Your task to perform on an android device: delete browsing data in the chrome app Image 0: 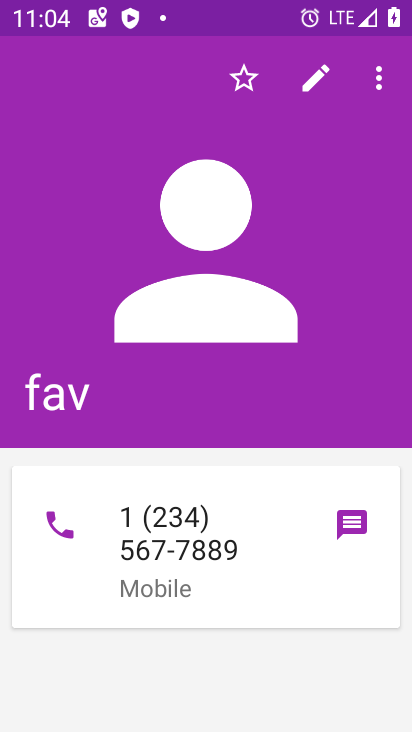
Step 0: press home button
Your task to perform on an android device: delete browsing data in the chrome app Image 1: 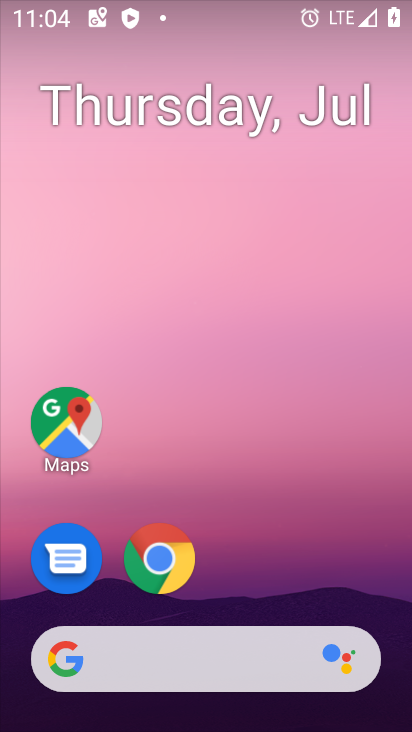
Step 1: drag from (352, 569) to (320, 66)
Your task to perform on an android device: delete browsing data in the chrome app Image 2: 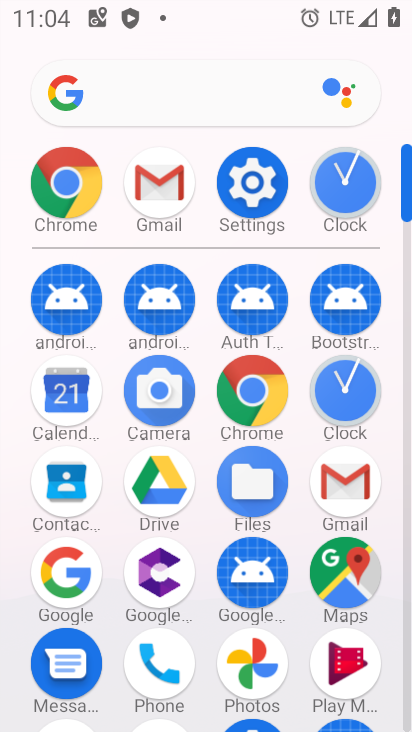
Step 2: click (260, 387)
Your task to perform on an android device: delete browsing data in the chrome app Image 3: 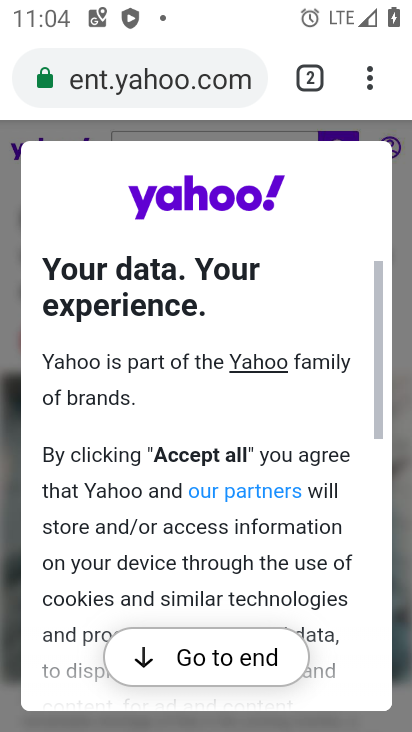
Step 3: click (370, 82)
Your task to perform on an android device: delete browsing data in the chrome app Image 4: 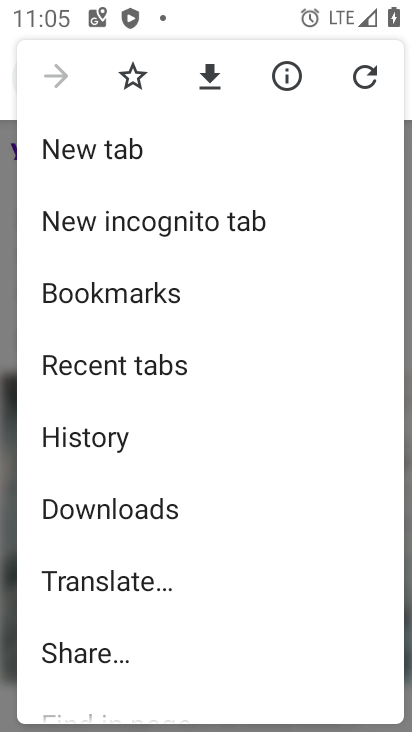
Step 4: drag from (306, 384) to (312, 265)
Your task to perform on an android device: delete browsing data in the chrome app Image 5: 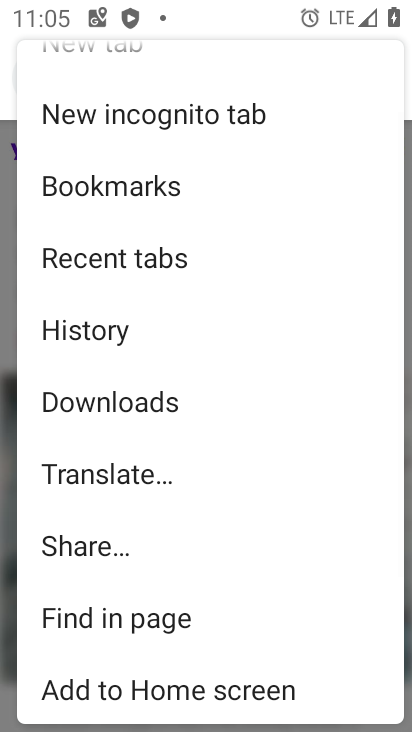
Step 5: drag from (293, 410) to (299, 300)
Your task to perform on an android device: delete browsing data in the chrome app Image 6: 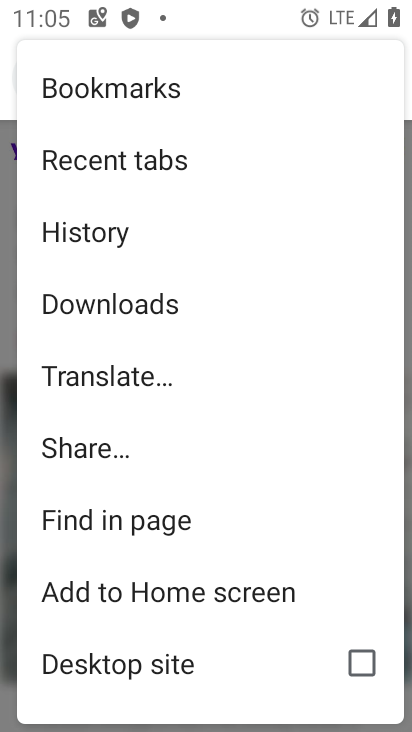
Step 6: drag from (295, 436) to (296, 308)
Your task to perform on an android device: delete browsing data in the chrome app Image 7: 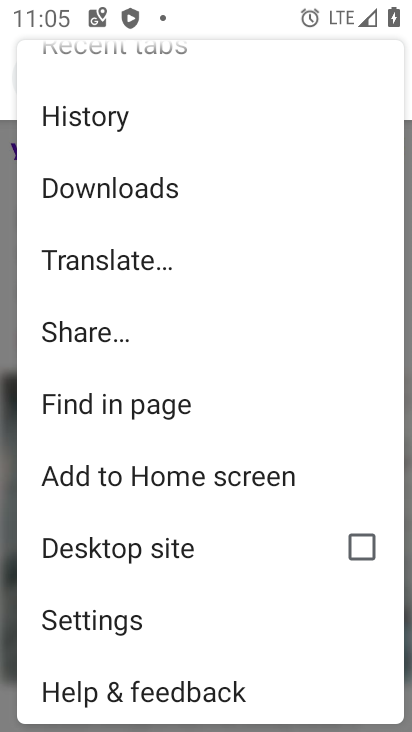
Step 7: click (245, 618)
Your task to perform on an android device: delete browsing data in the chrome app Image 8: 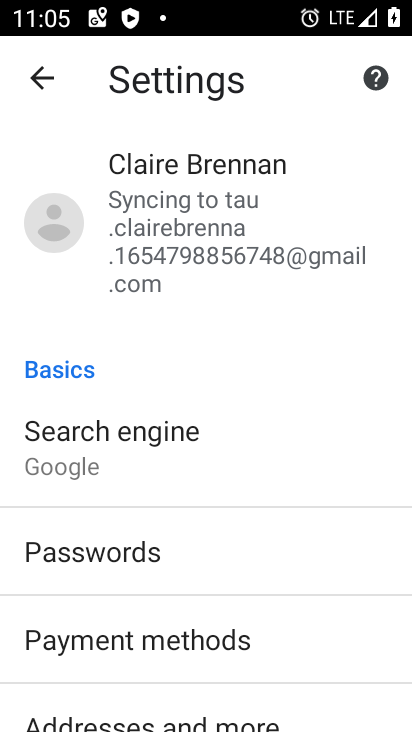
Step 8: drag from (324, 535) to (336, 446)
Your task to perform on an android device: delete browsing data in the chrome app Image 9: 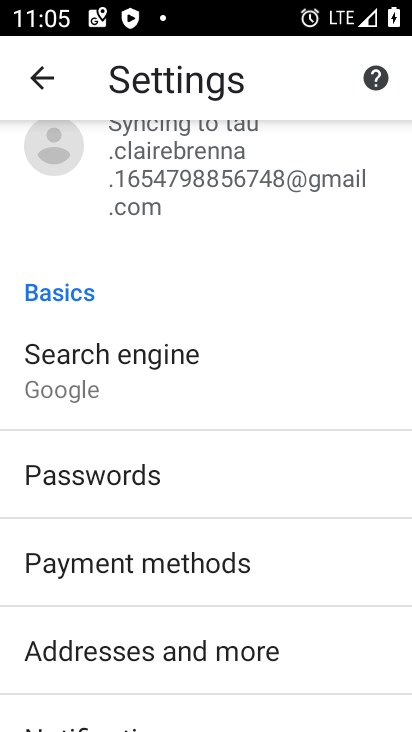
Step 9: drag from (350, 526) to (349, 418)
Your task to perform on an android device: delete browsing data in the chrome app Image 10: 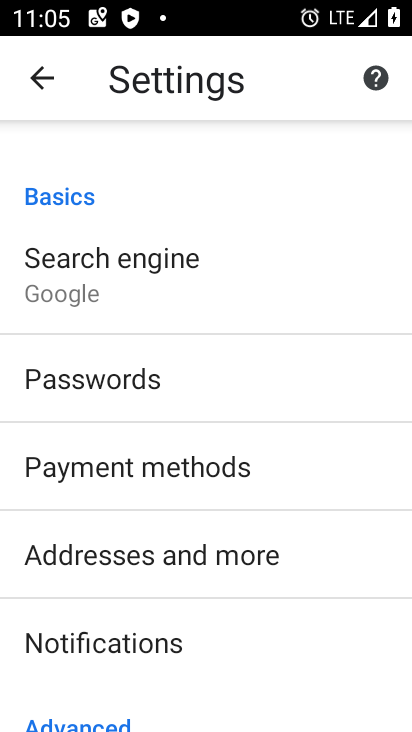
Step 10: drag from (338, 516) to (336, 388)
Your task to perform on an android device: delete browsing data in the chrome app Image 11: 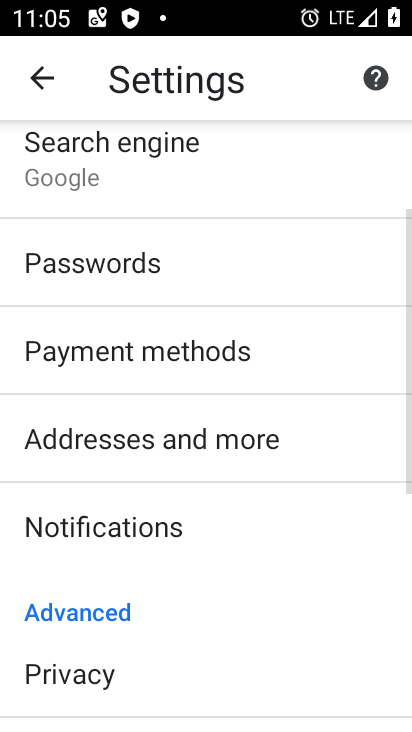
Step 11: drag from (325, 478) to (340, 300)
Your task to perform on an android device: delete browsing data in the chrome app Image 12: 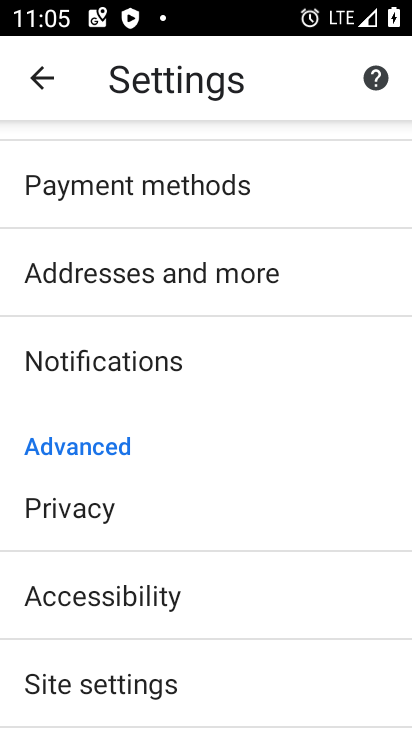
Step 12: drag from (350, 475) to (350, 307)
Your task to perform on an android device: delete browsing data in the chrome app Image 13: 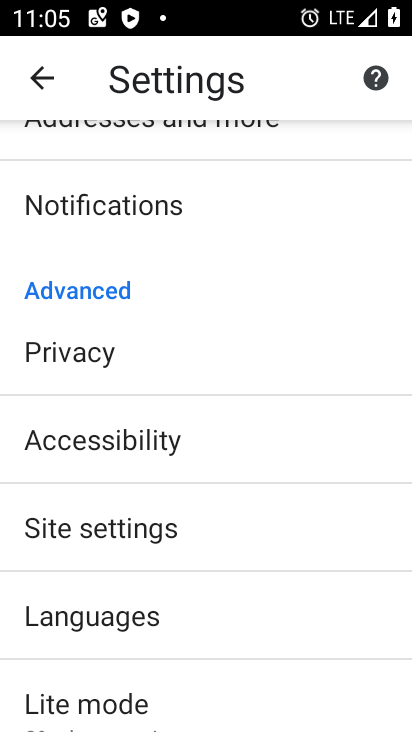
Step 13: drag from (322, 518) to (321, 349)
Your task to perform on an android device: delete browsing data in the chrome app Image 14: 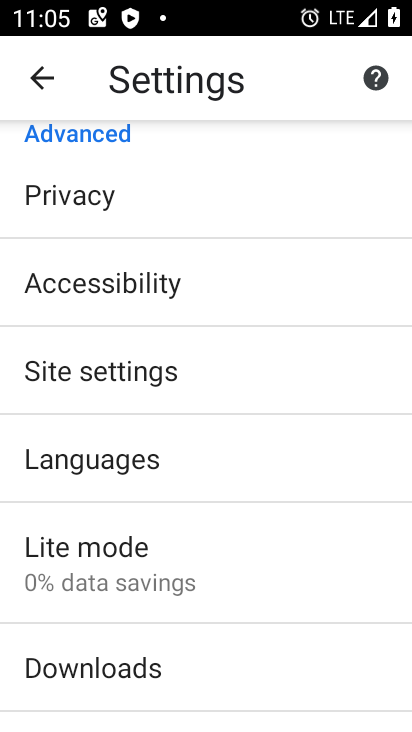
Step 14: drag from (305, 540) to (308, 405)
Your task to perform on an android device: delete browsing data in the chrome app Image 15: 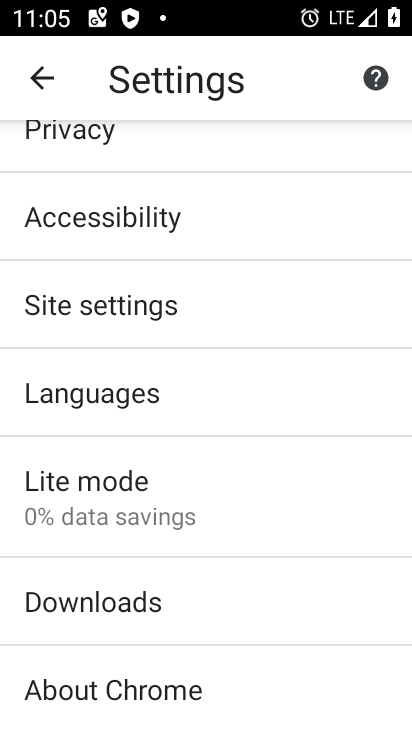
Step 15: drag from (275, 226) to (272, 390)
Your task to perform on an android device: delete browsing data in the chrome app Image 16: 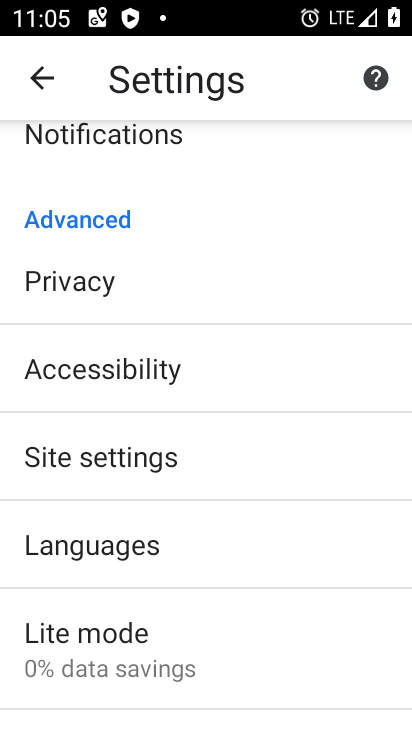
Step 16: click (252, 279)
Your task to perform on an android device: delete browsing data in the chrome app Image 17: 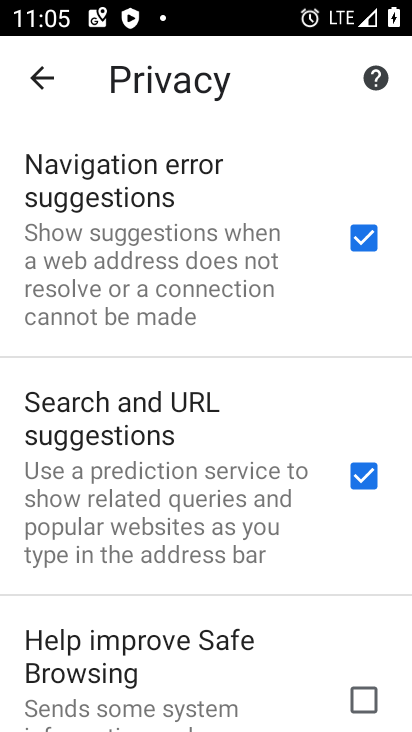
Step 17: drag from (263, 540) to (267, 412)
Your task to perform on an android device: delete browsing data in the chrome app Image 18: 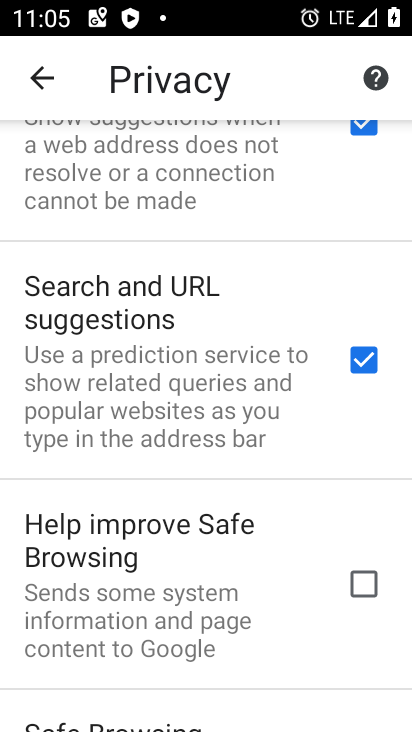
Step 18: drag from (265, 527) to (263, 422)
Your task to perform on an android device: delete browsing data in the chrome app Image 19: 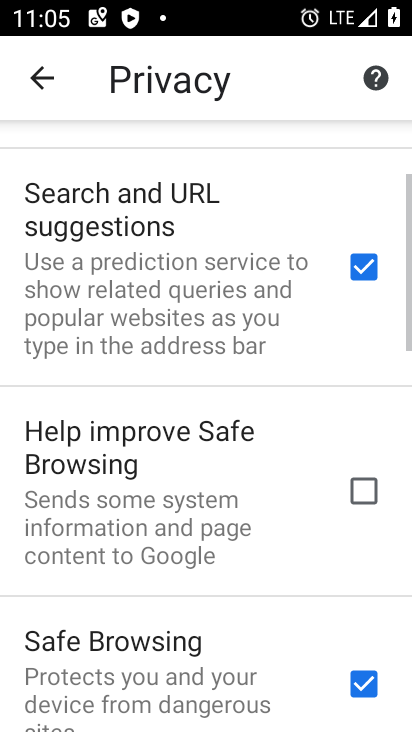
Step 19: drag from (261, 564) to (269, 459)
Your task to perform on an android device: delete browsing data in the chrome app Image 20: 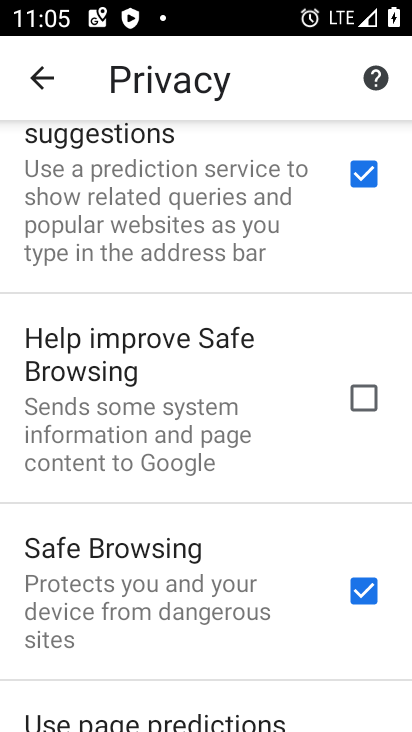
Step 20: drag from (282, 576) to (287, 452)
Your task to perform on an android device: delete browsing data in the chrome app Image 21: 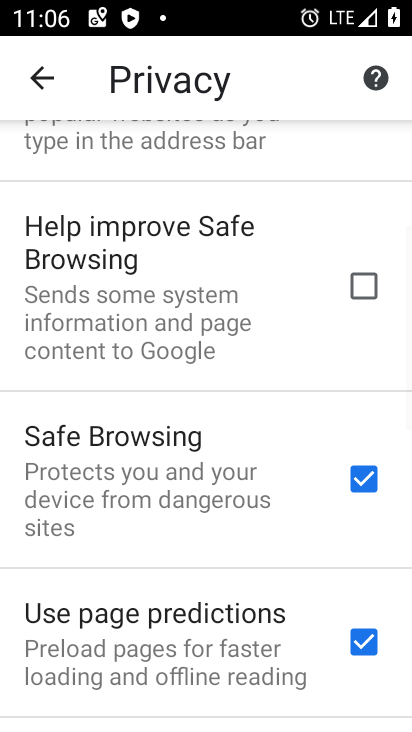
Step 21: drag from (282, 585) to (291, 434)
Your task to perform on an android device: delete browsing data in the chrome app Image 22: 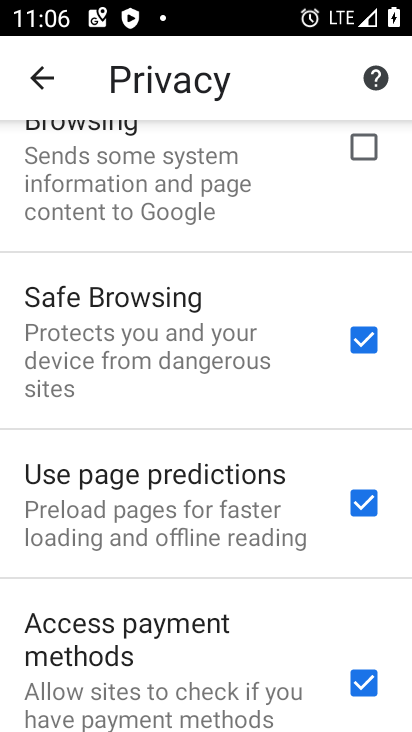
Step 22: drag from (291, 628) to (285, 455)
Your task to perform on an android device: delete browsing data in the chrome app Image 23: 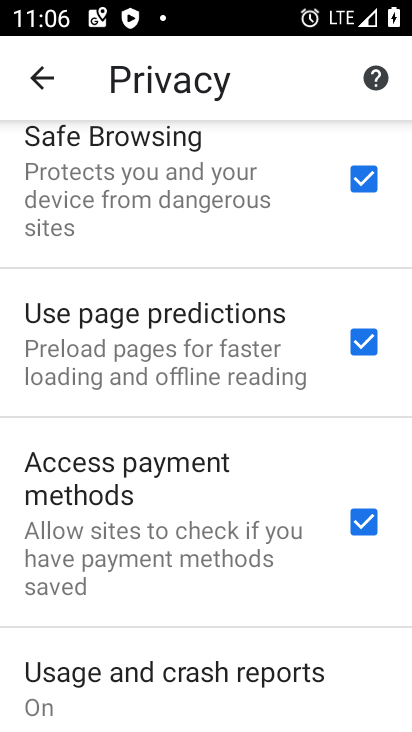
Step 23: drag from (277, 609) to (285, 454)
Your task to perform on an android device: delete browsing data in the chrome app Image 24: 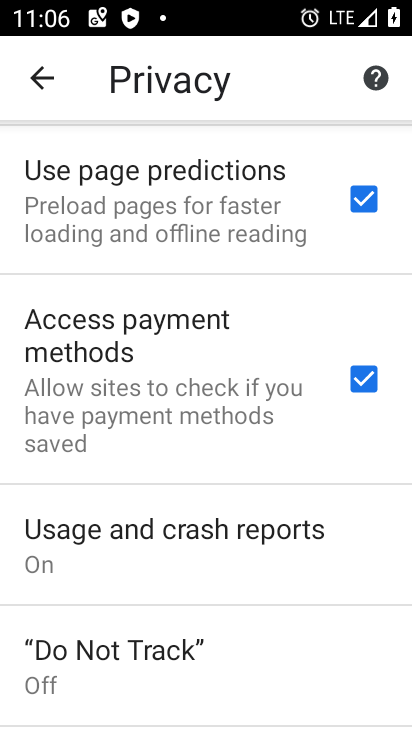
Step 24: drag from (285, 618) to (285, 441)
Your task to perform on an android device: delete browsing data in the chrome app Image 25: 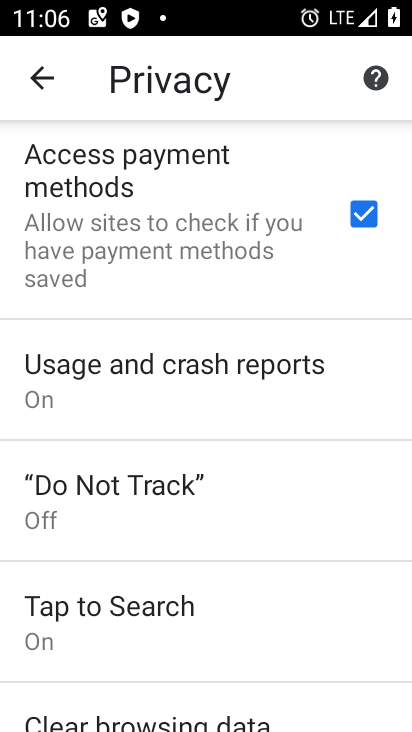
Step 25: drag from (280, 603) to (306, 400)
Your task to perform on an android device: delete browsing data in the chrome app Image 26: 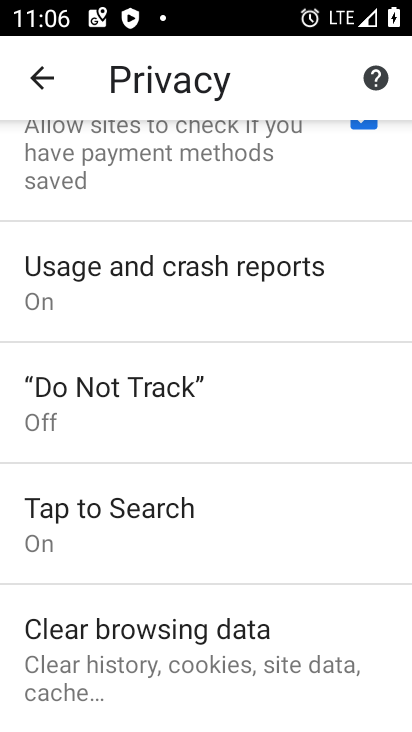
Step 26: click (306, 653)
Your task to perform on an android device: delete browsing data in the chrome app Image 27: 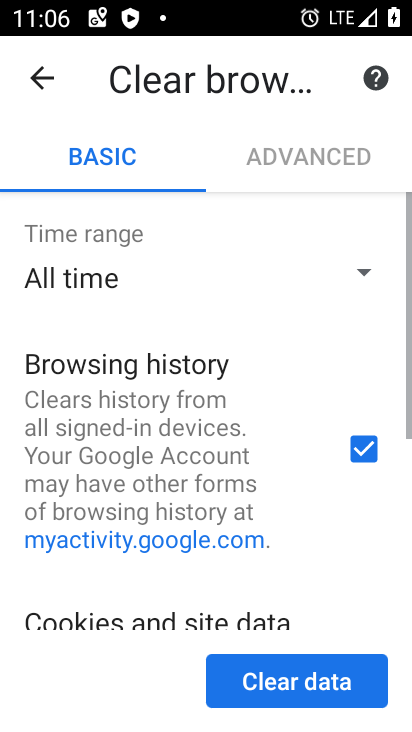
Step 27: drag from (315, 579) to (320, 431)
Your task to perform on an android device: delete browsing data in the chrome app Image 28: 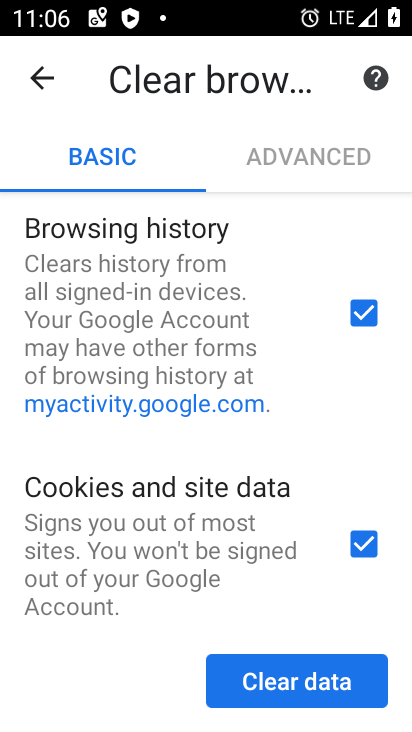
Step 28: click (313, 666)
Your task to perform on an android device: delete browsing data in the chrome app Image 29: 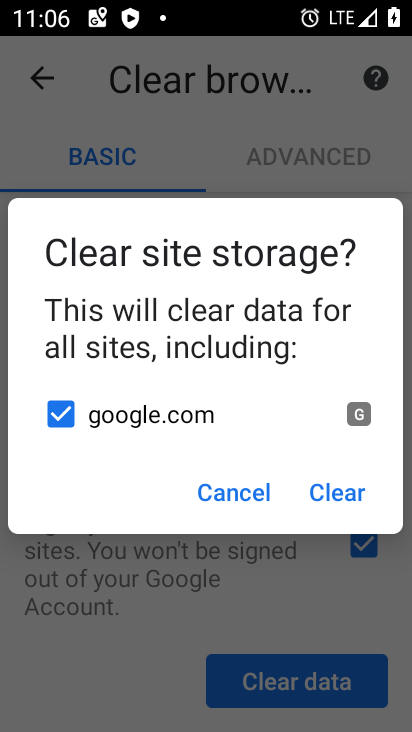
Step 29: click (346, 491)
Your task to perform on an android device: delete browsing data in the chrome app Image 30: 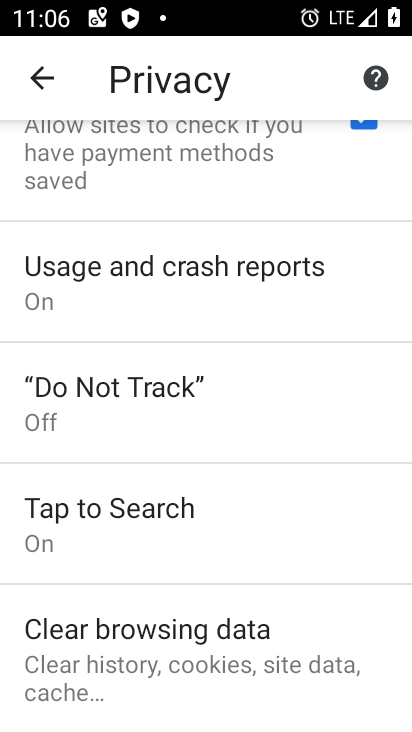
Step 30: task complete